Your task to perform on an android device: toggle location history Image 0: 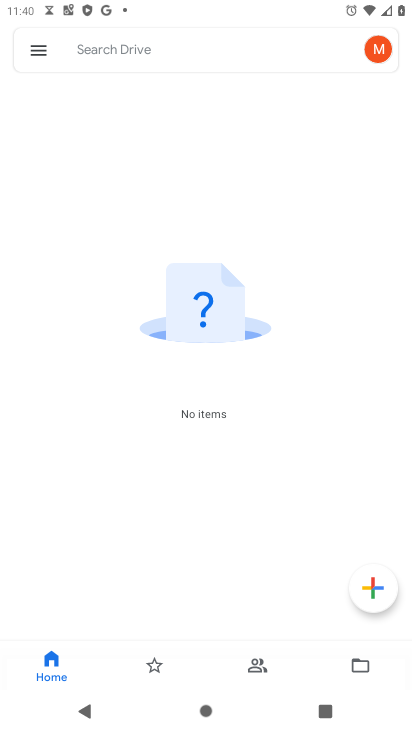
Step 0: press home button
Your task to perform on an android device: toggle location history Image 1: 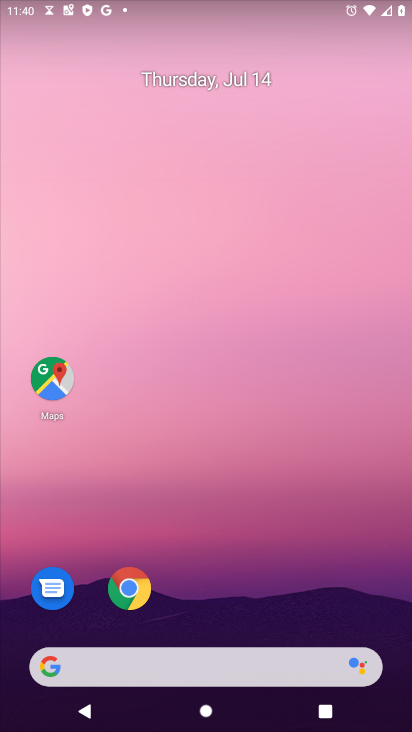
Step 1: click (51, 376)
Your task to perform on an android device: toggle location history Image 2: 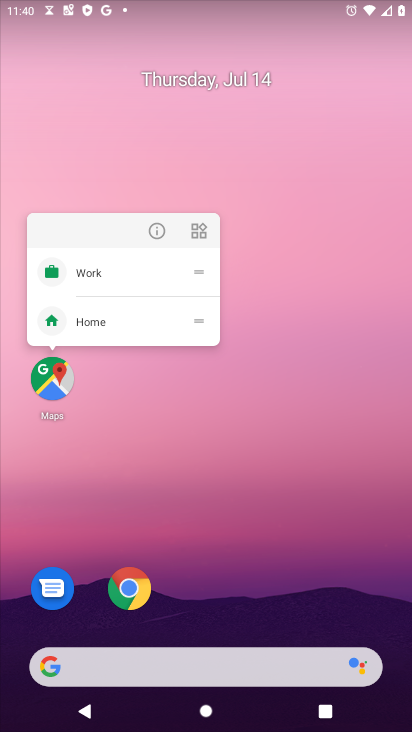
Step 2: click (52, 378)
Your task to perform on an android device: toggle location history Image 3: 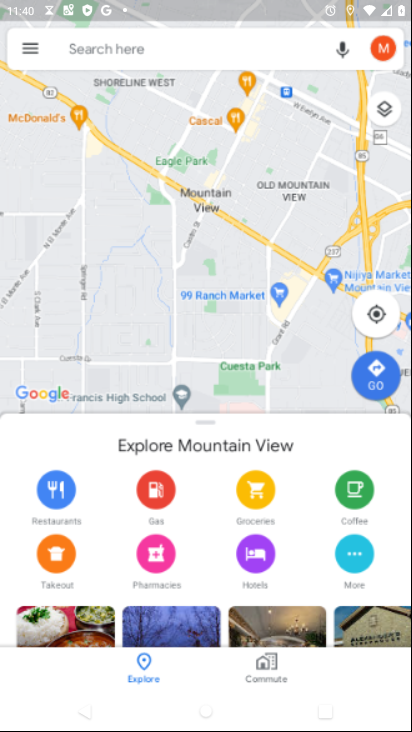
Step 3: click (31, 45)
Your task to perform on an android device: toggle location history Image 4: 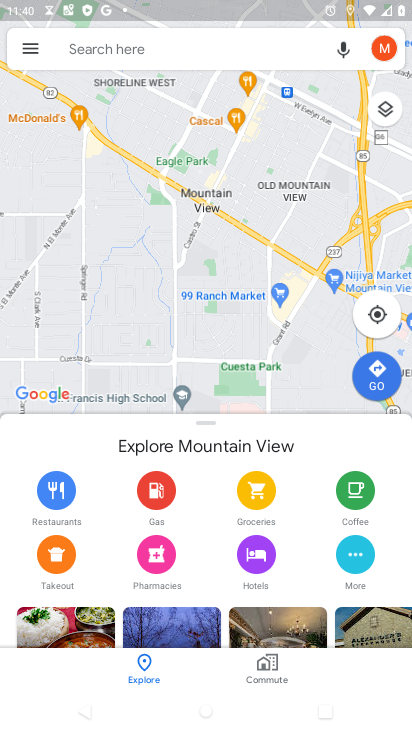
Step 4: click (29, 47)
Your task to perform on an android device: toggle location history Image 5: 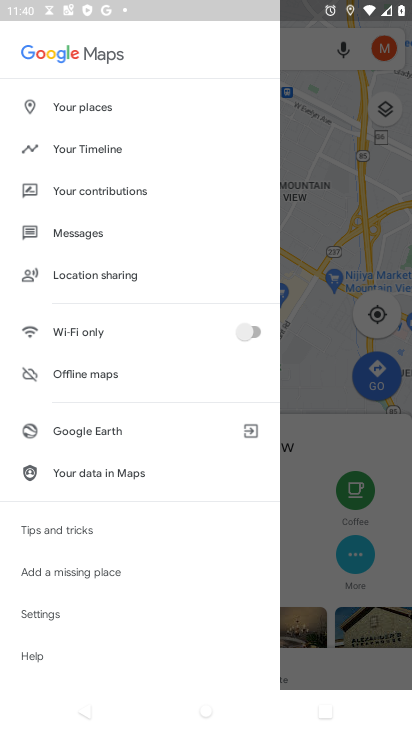
Step 5: click (106, 145)
Your task to perform on an android device: toggle location history Image 6: 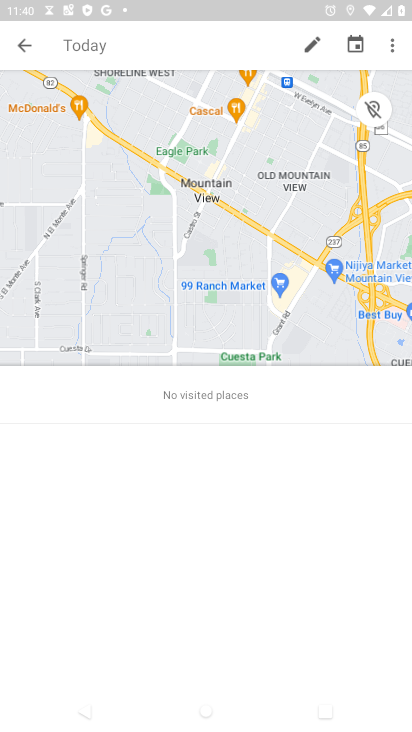
Step 6: click (393, 43)
Your task to perform on an android device: toggle location history Image 7: 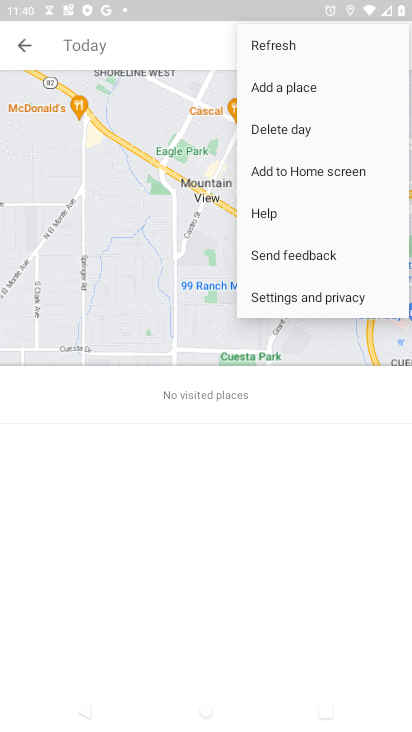
Step 7: click (317, 287)
Your task to perform on an android device: toggle location history Image 8: 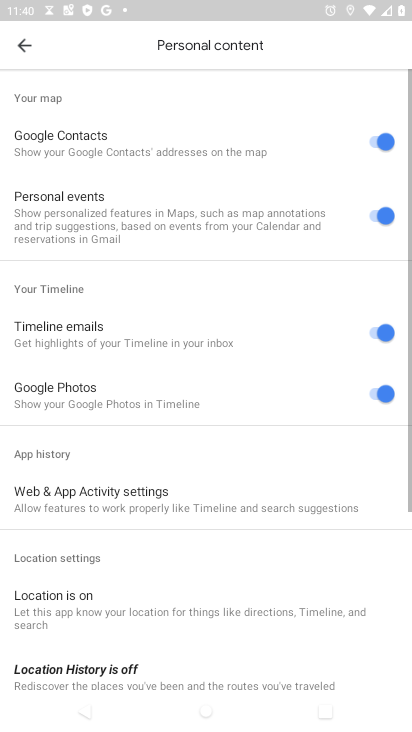
Step 8: drag from (171, 587) to (277, 99)
Your task to perform on an android device: toggle location history Image 9: 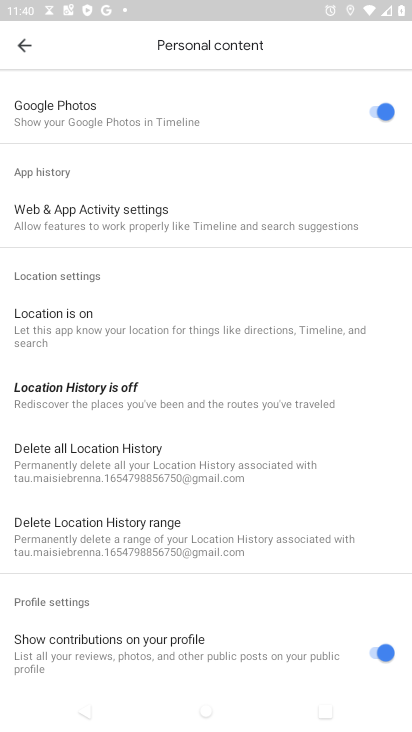
Step 9: click (116, 400)
Your task to perform on an android device: toggle location history Image 10: 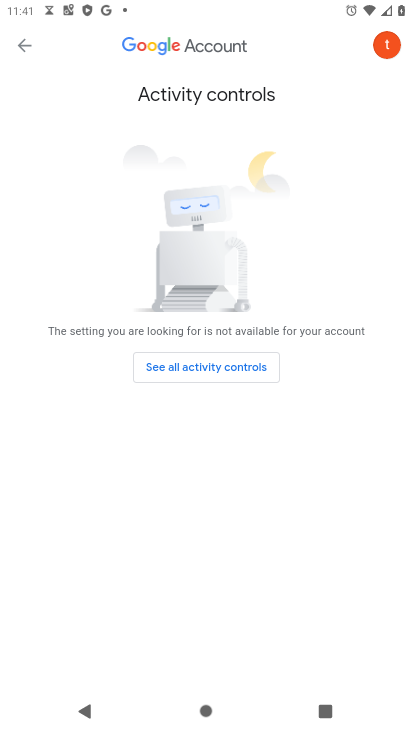
Step 10: task complete